Your task to perform on an android device: set the stopwatch Image 0: 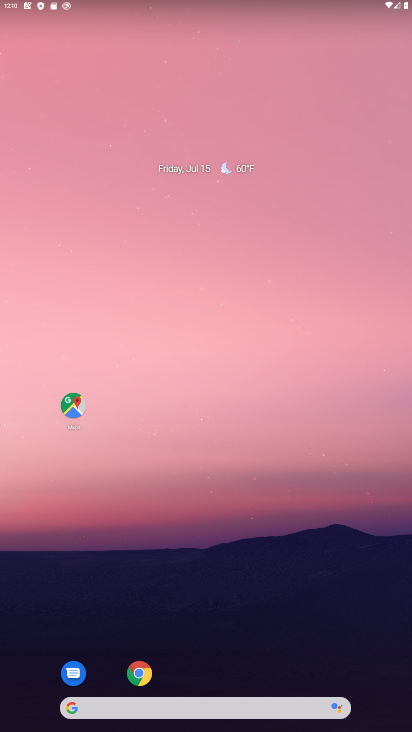
Step 0: drag from (274, 246) to (184, 9)
Your task to perform on an android device: set the stopwatch Image 1: 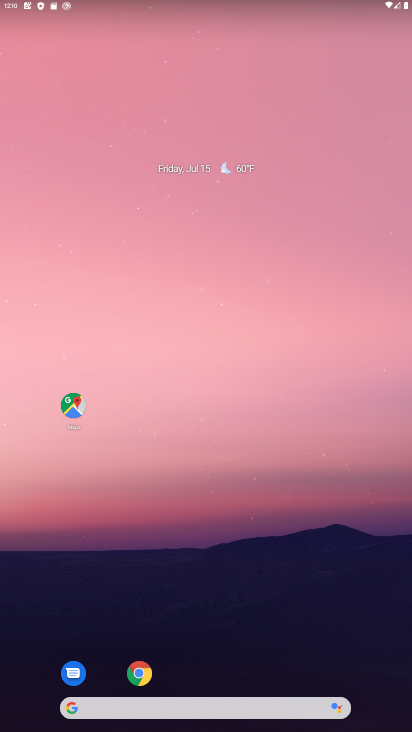
Step 1: drag from (304, 609) to (279, 0)
Your task to perform on an android device: set the stopwatch Image 2: 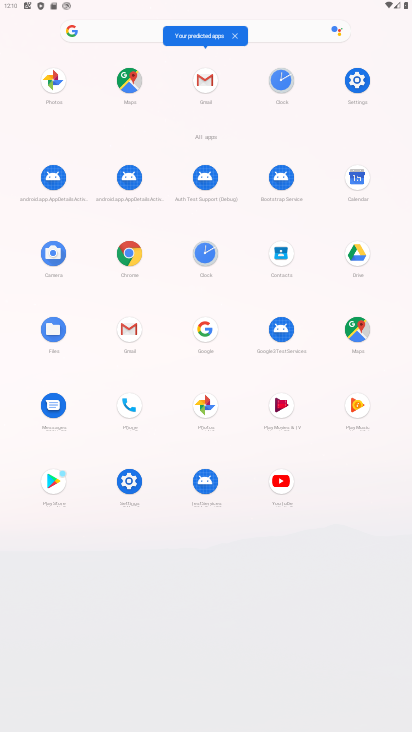
Step 2: click (279, 75)
Your task to perform on an android device: set the stopwatch Image 3: 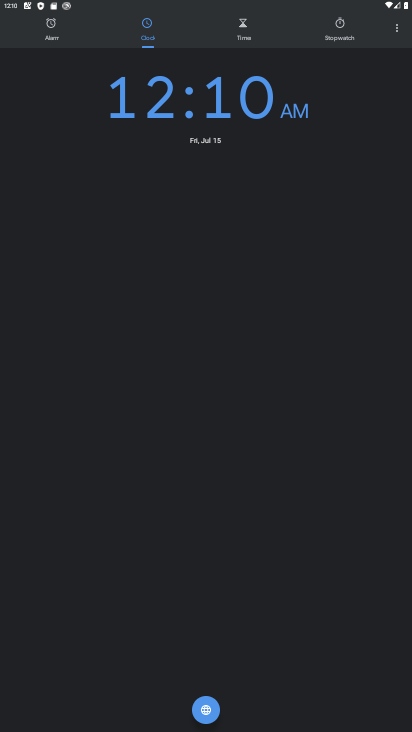
Step 3: click (333, 46)
Your task to perform on an android device: set the stopwatch Image 4: 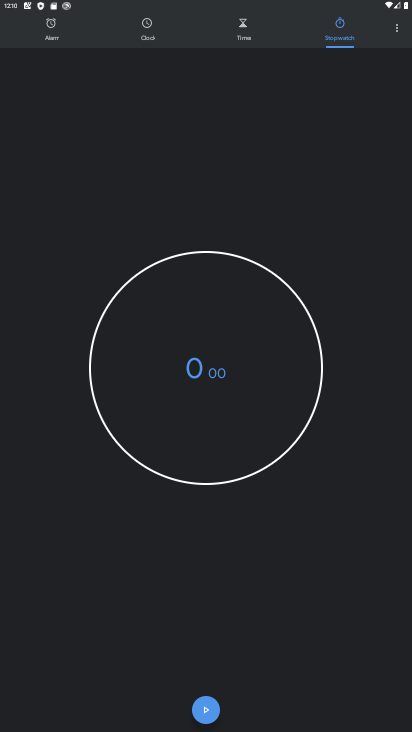
Step 4: click (204, 706)
Your task to perform on an android device: set the stopwatch Image 5: 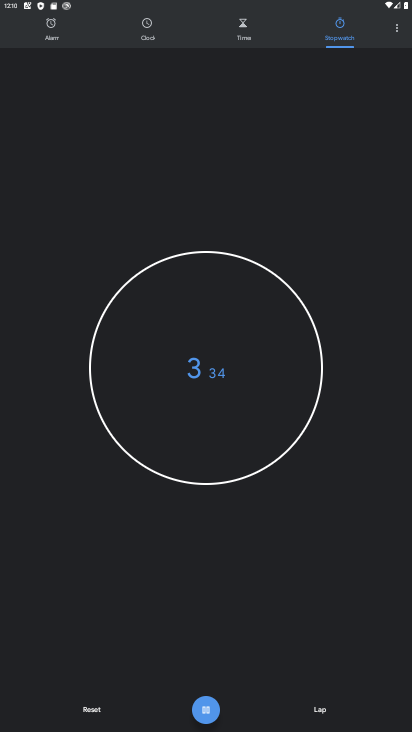
Step 5: task complete